Your task to perform on an android device: Open privacy settings Image 0: 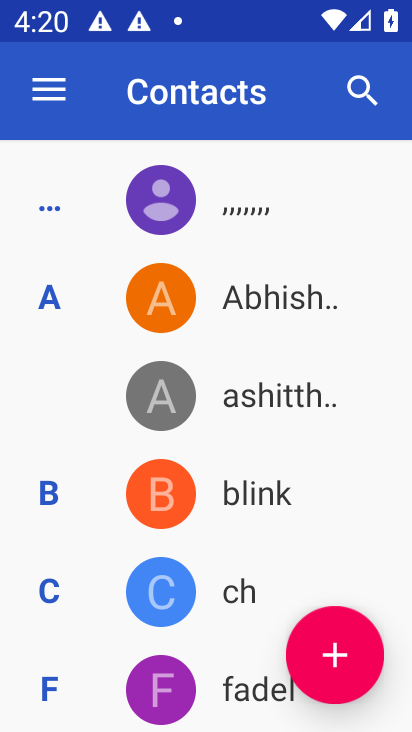
Step 0: press home button
Your task to perform on an android device: Open privacy settings Image 1: 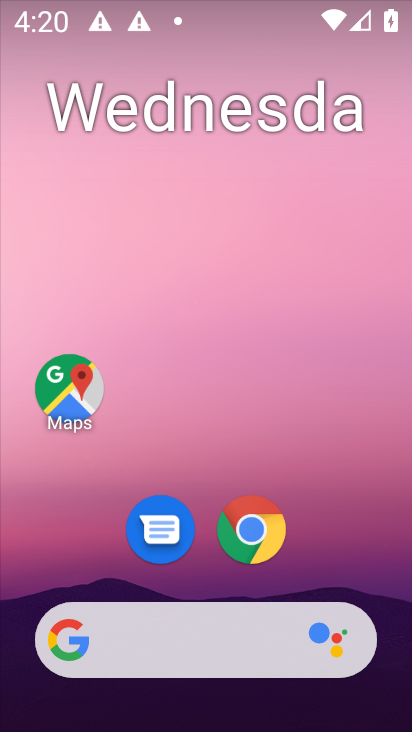
Step 1: drag from (236, 457) to (107, 5)
Your task to perform on an android device: Open privacy settings Image 2: 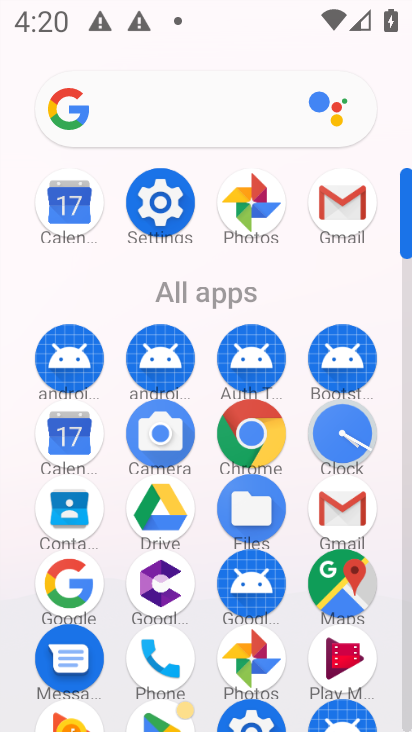
Step 2: click (158, 230)
Your task to perform on an android device: Open privacy settings Image 3: 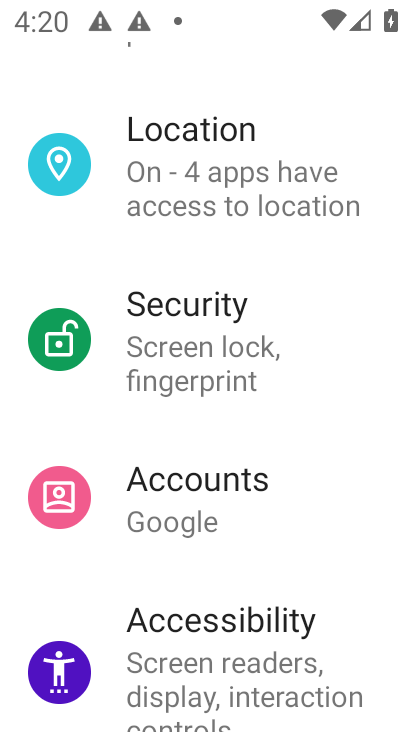
Step 3: drag from (225, 330) to (216, 724)
Your task to perform on an android device: Open privacy settings Image 4: 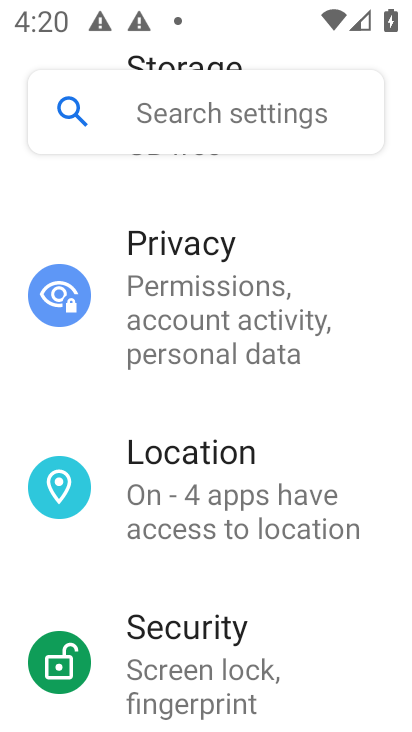
Step 4: click (188, 279)
Your task to perform on an android device: Open privacy settings Image 5: 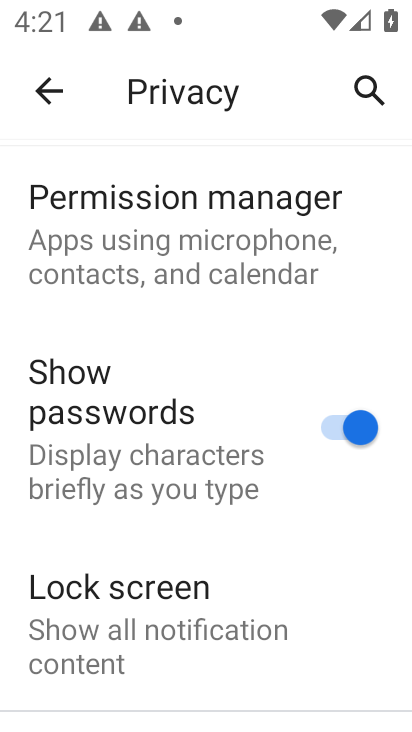
Step 5: task complete